Your task to perform on an android device: change timer sound Image 0: 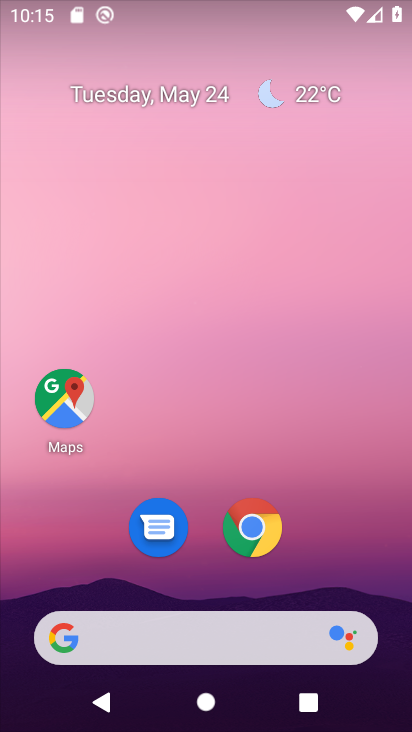
Step 0: press home button
Your task to perform on an android device: change timer sound Image 1: 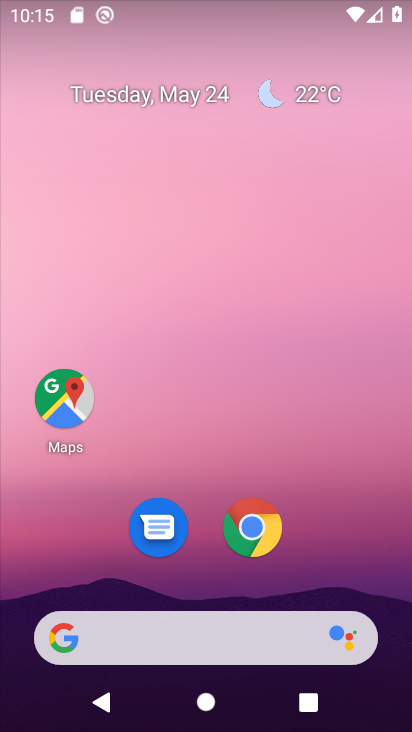
Step 1: drag from (209, 645) to (361, 89)
Your task to perform on an android device: change timer sound Image 2: 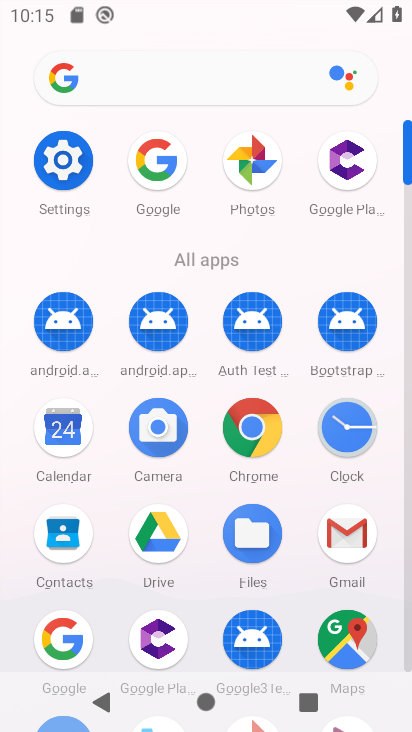
Step 2: click (72, 175)
Your task to perform on an android device: change timer sound Image 3: 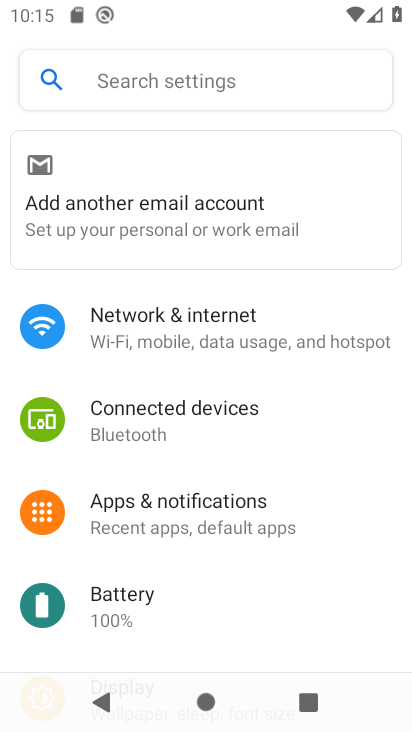
Step 3: drag from (222, 635) to (352, 270)
Your task to perform on an android device: change timer sound Image 4: 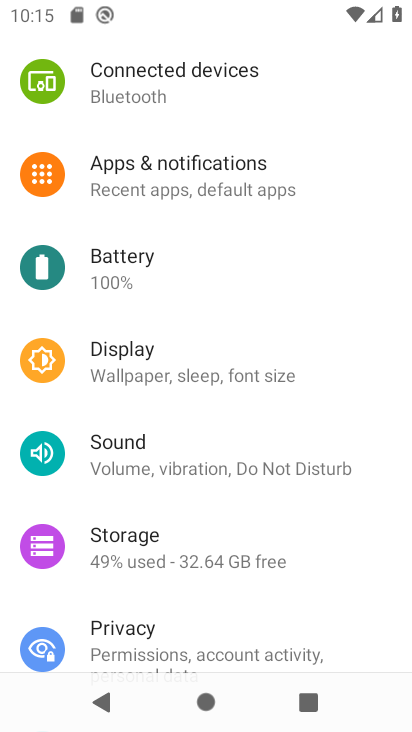
Step 4: press home button
Your task to perform on an android device: change timer sound Image 5: 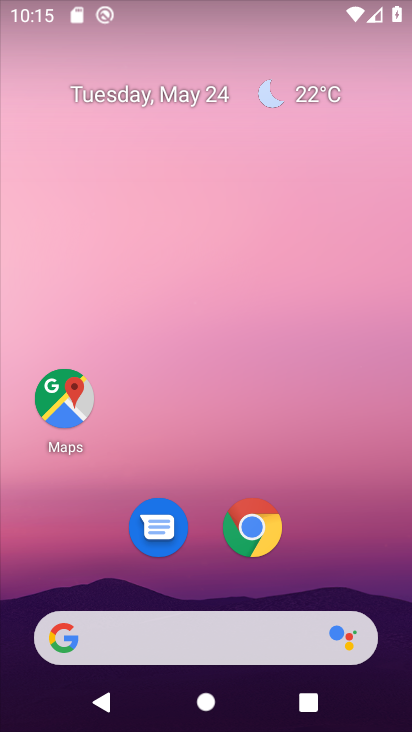
Step 5: drag from (205, 583) to (329, 177)
Your task to perform on an android device: change timer sound Image 6: 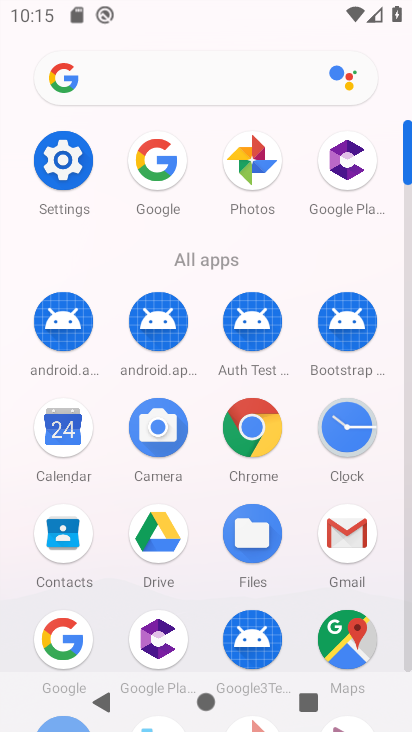
Step 6: click (349, 419)
Your task to perform on an android device: change timer sound Image 7: 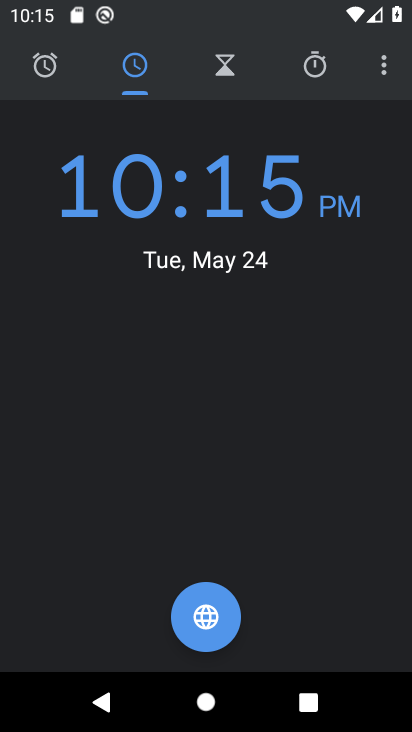
Step 7: click (388, 70)
Your task to perform on an android device: change timer sound Image 8: 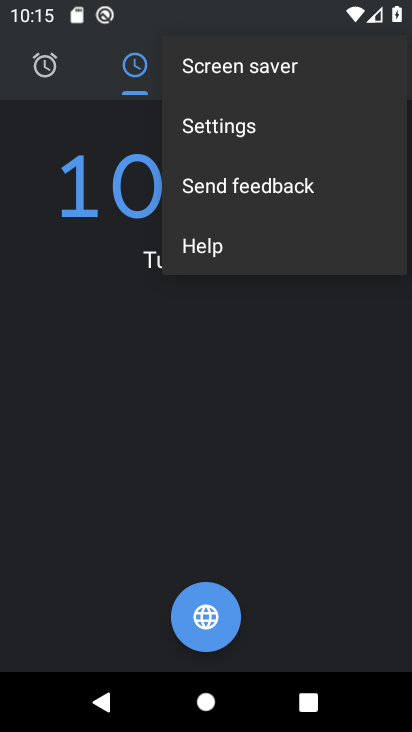
Step 8: click (243, 133)
Your task to perform on an android device: change timer sound Image 9: 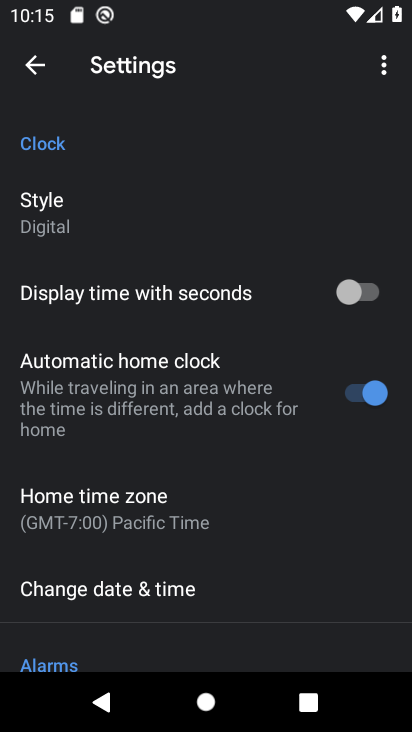
Step 9: drag from (215, 571) to (320, 348)
Your task to perform on an android device: change timer sound Image 10: 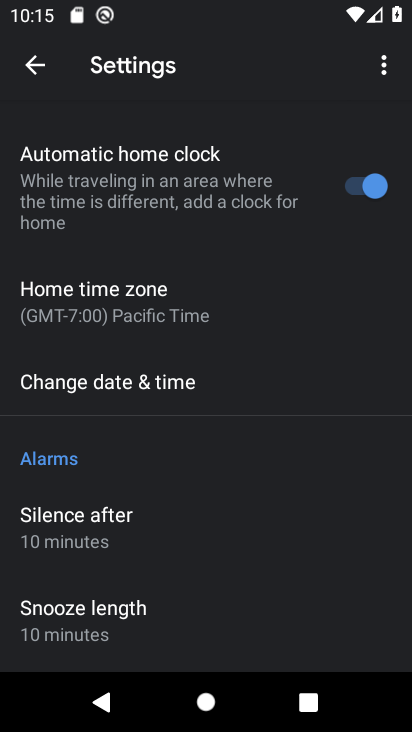
Step 10: drag from (169, 526) to (358, 51)
Your task to perform on an android device: change timer sound Image 11: 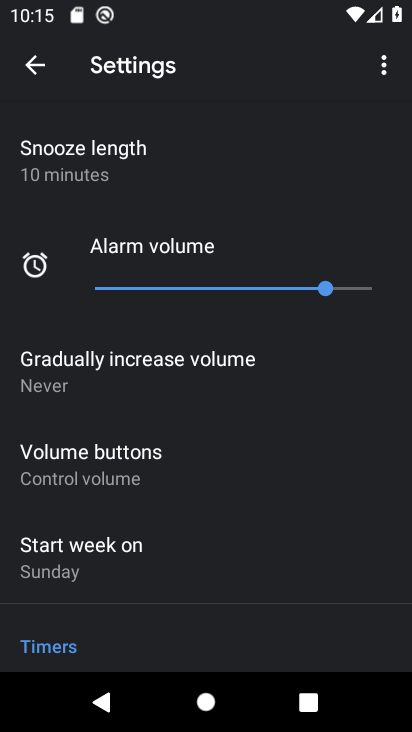
Step 11: drag from (184, 521) to (294, 181)
Your task to perform on an android device: change timer sound Image 12: 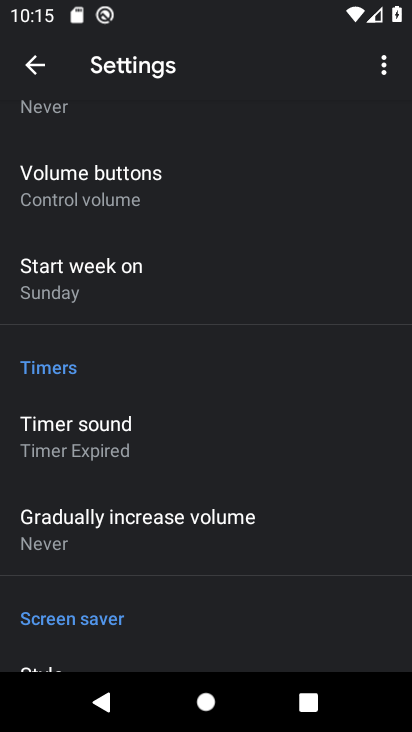
Step 12: click (107, 439)
Your task to perform on an android device: change timer sound Image 13: 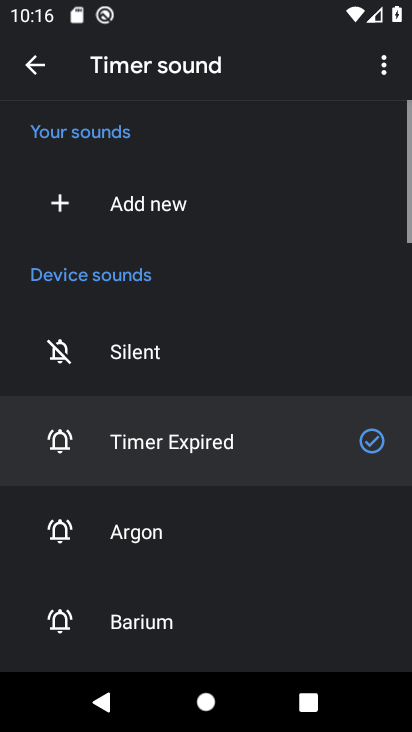
Step 13: click (138, 532)
Your task to perform on an android device: change timer sound Image 14: 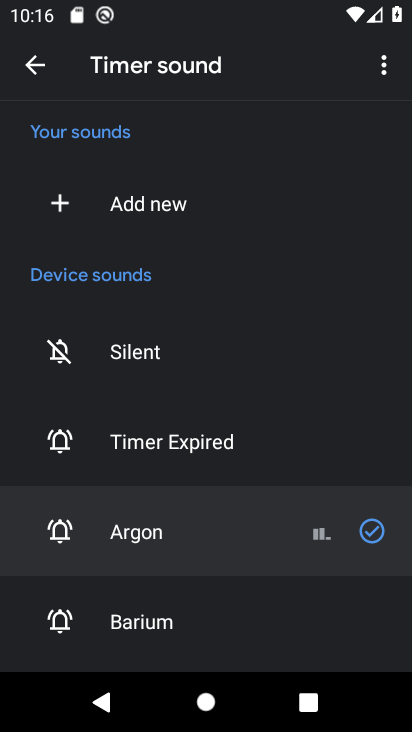
Step 14: task complete